Your task to perform on an android device: Open the Play Movies app and select the watchlist tab. Image 0: 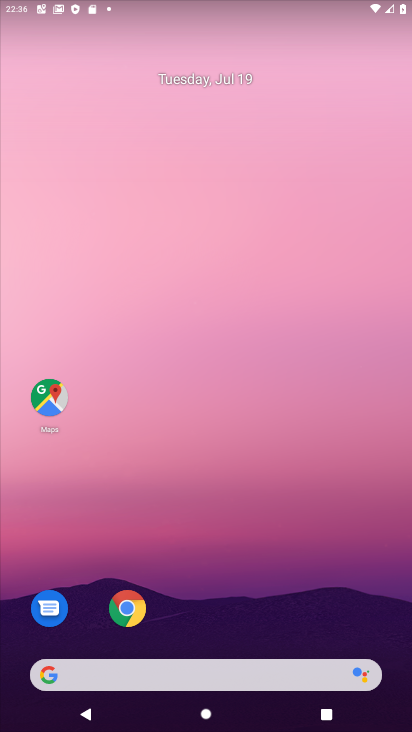
Step 0: drag from (319, 536) to (332, 59)
Your task to perform on an android device: Open the Play Movies app and select the watchlist tab. Image 1: 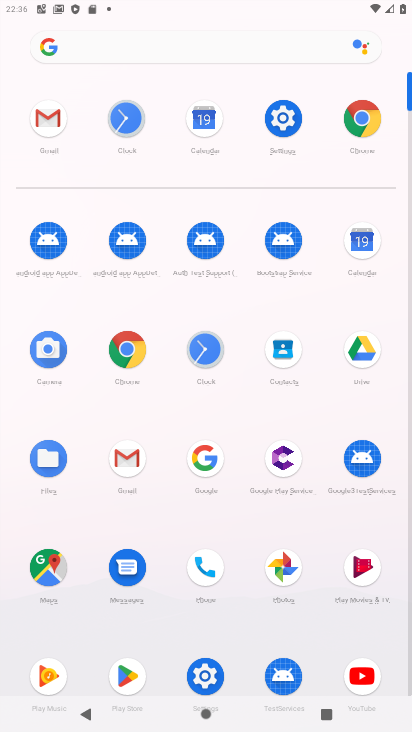
Step 1: click (370, 559)
Your task to perform on an android device: Open the Play Movies app and select the watchlist tab. Image 2: 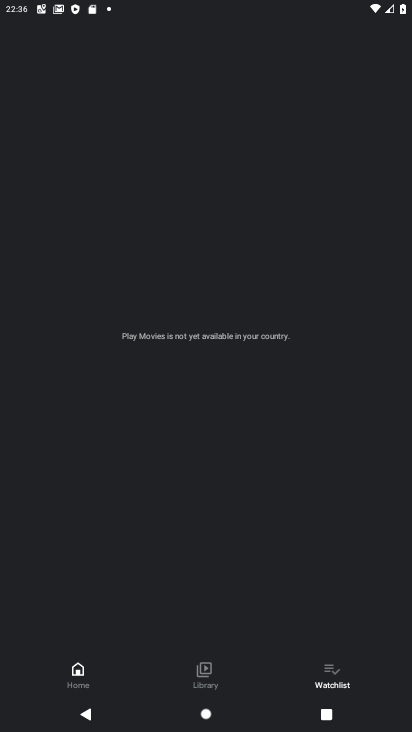
Step 2: click (334, 669)
Your task to perform on an android device: Open the Play Movies app and select the watchlist tab. Image 3: 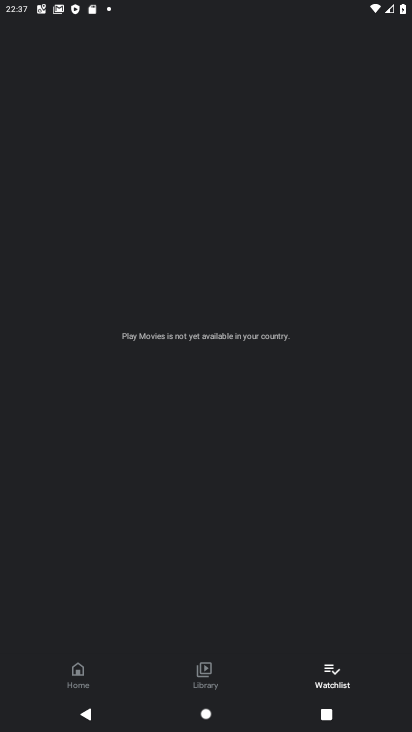
Step 3: task complete